Your task to perform on an android device: Search for flights from Helsinki to Seoul Image 0: 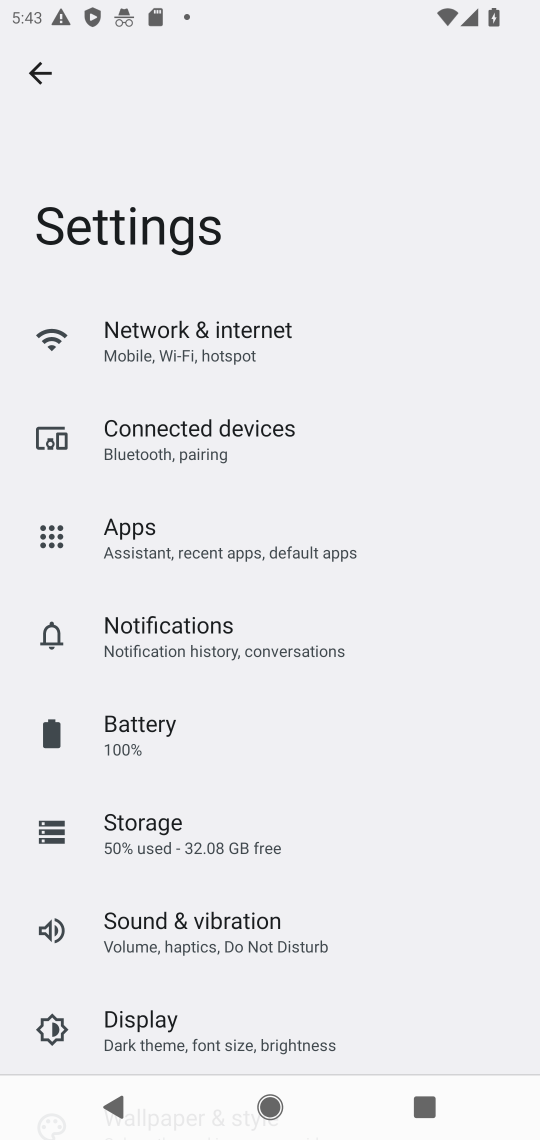
Step 0: press home button
Your task to perform on an android device: Search for flights from Helsinki to Seoul Image 1: 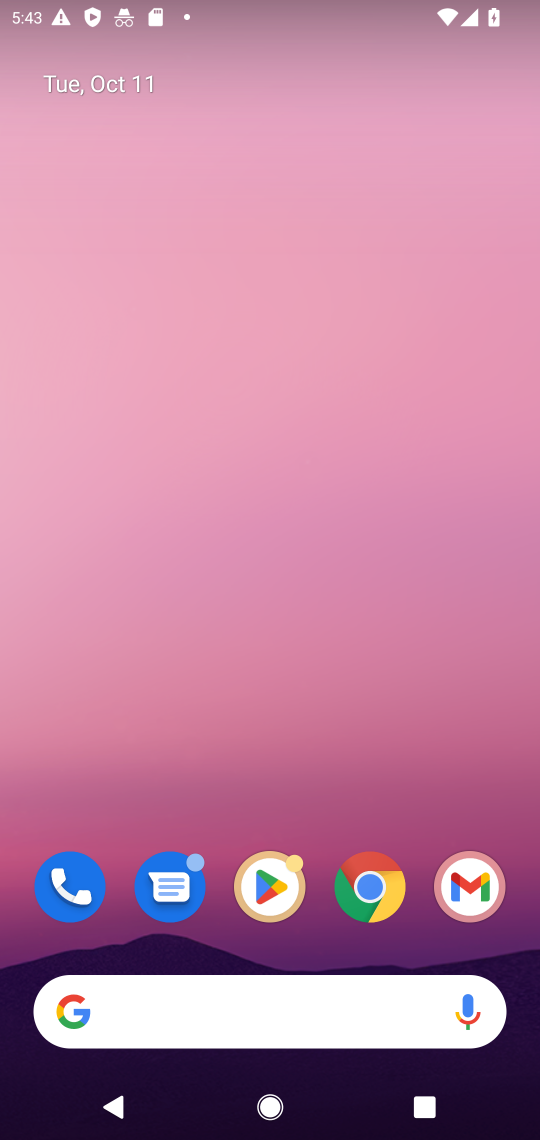
Step 1: drag from (256, 756) to (245, 236)
Your task to perform on an android device: Search for flights from Helsinki to Seoul Image 2: 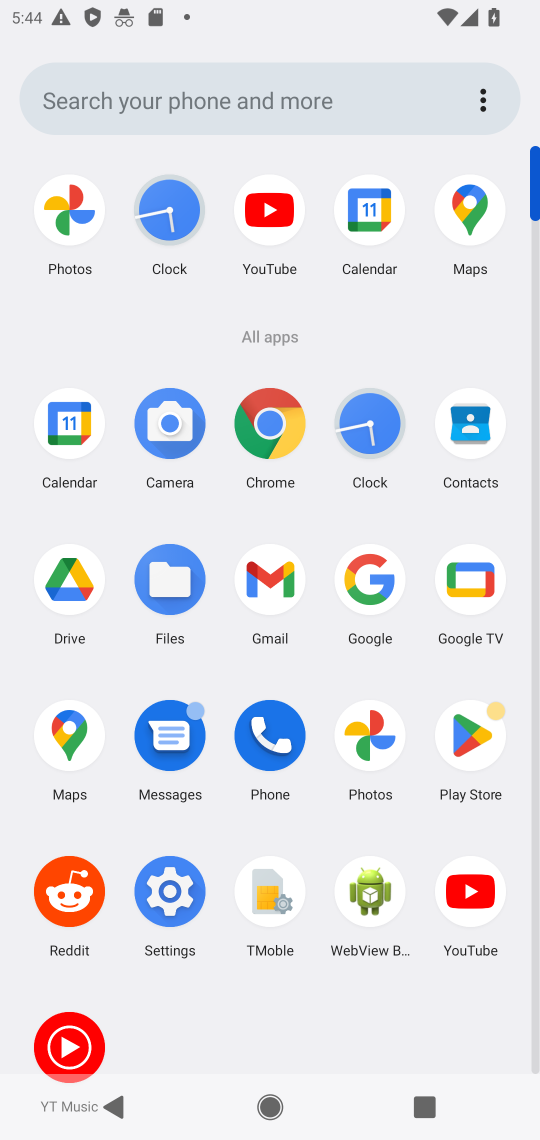
Step 2: click (367, 572)
Your task to perform on an android device: Search for flights from Helsinki to Seoul Image 3: 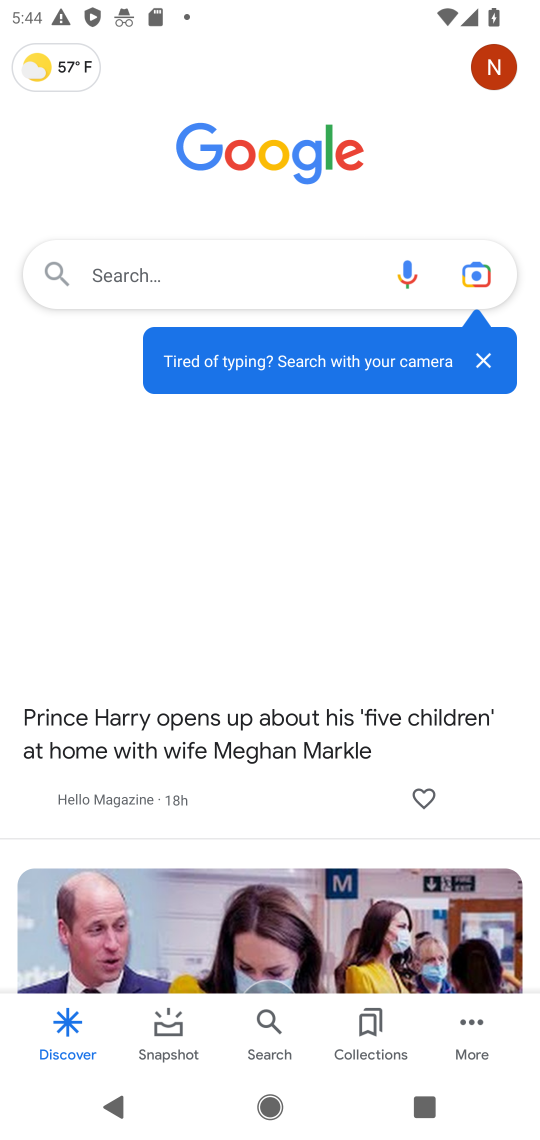
Step 3: click (240, 265)
Your task to perform on an android device: Search for flights from Helsinki to Seoul Image 4: 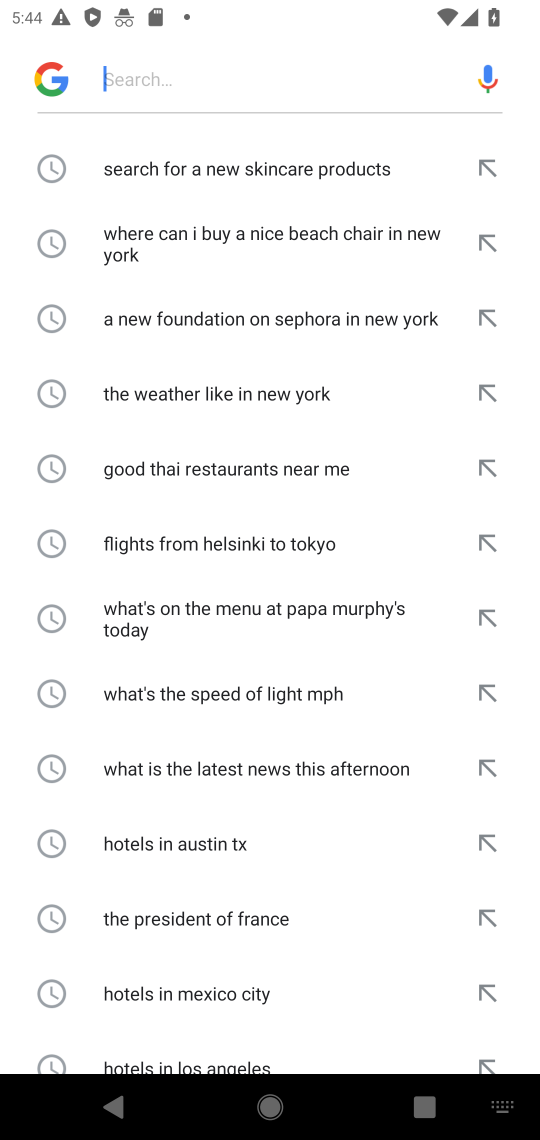
Step 4: type " flights from Helsinki to Seoul"
Your task to perform on an android device: Search for flights from Helsinki to Seoul Image 5: 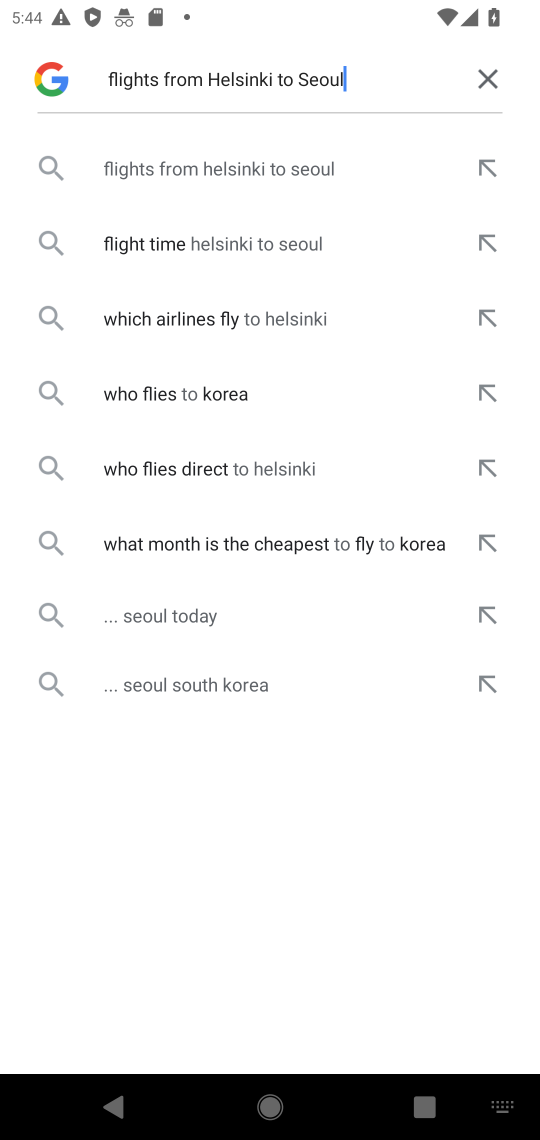
Step 5: click (271, 172)
Your task to perform on an android device: Search for flights from Helsinki to Seoul Image 6: 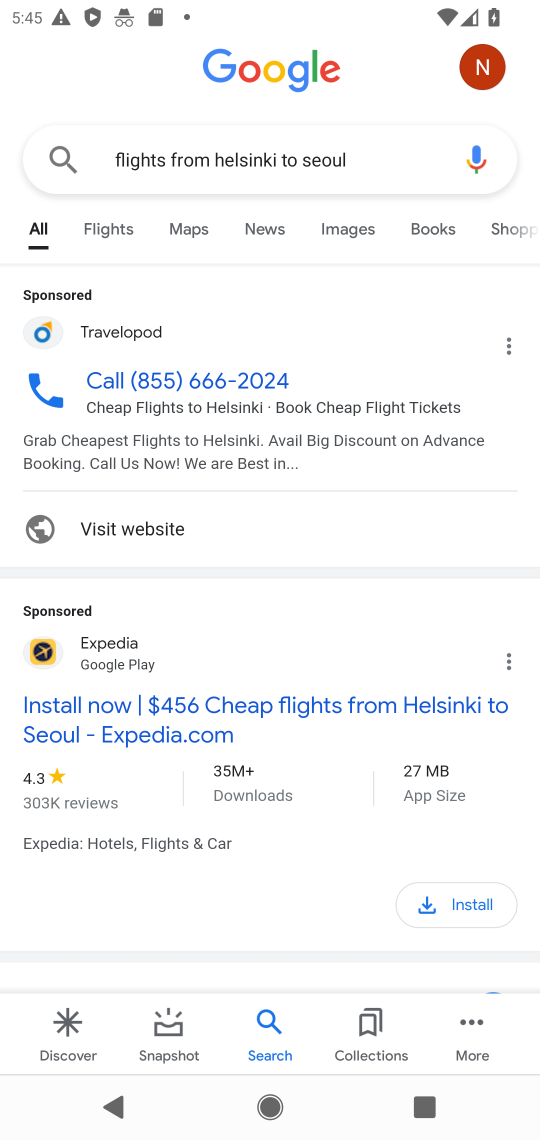
Step 6: drag from (303, 674) to (280, 386)
Your task to perform on an android device: Search for flights from Helsinki to Seoul Image 7: 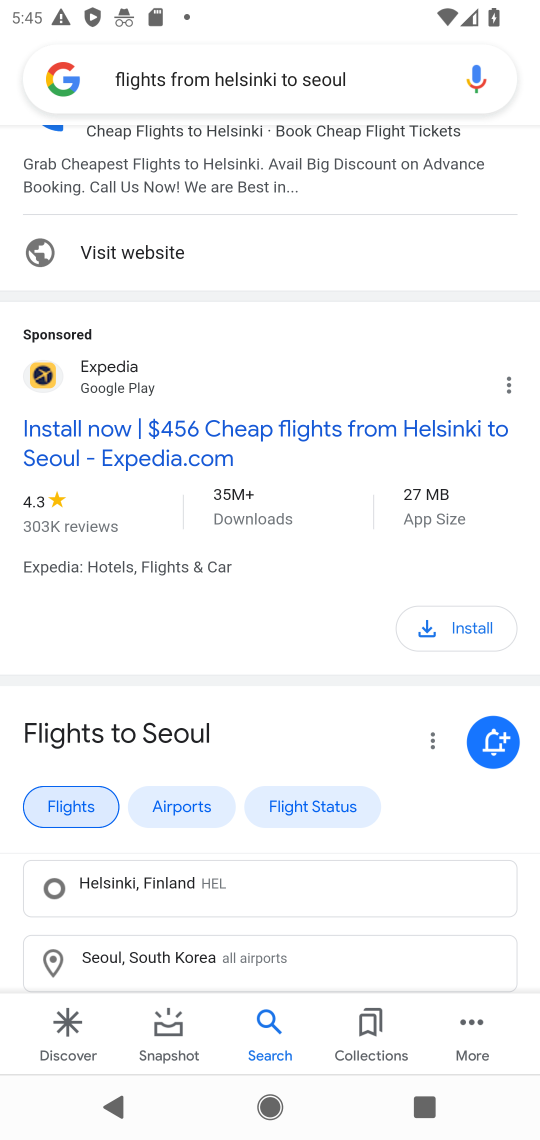
Step 7: drag from (360, 832) to (306, 302)
Your task to perform on an android device: Search for flights from Helsinki to Seoul Image 8: 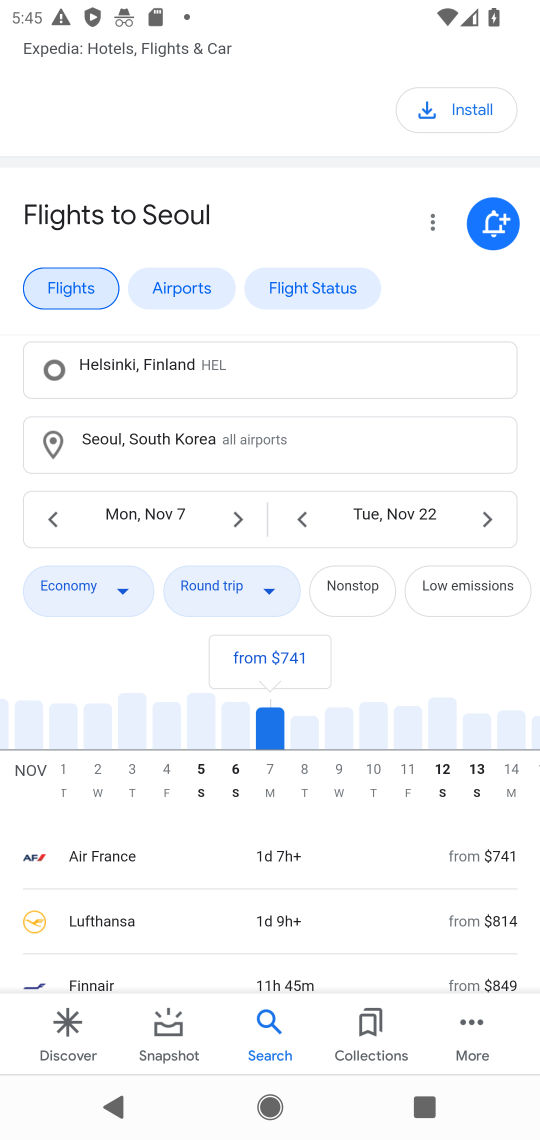
Step 8: drag from (306, 706) to (306, 331)
Your task to perform on an android device: Search for flights from Helsinki to Seoul Image 9: 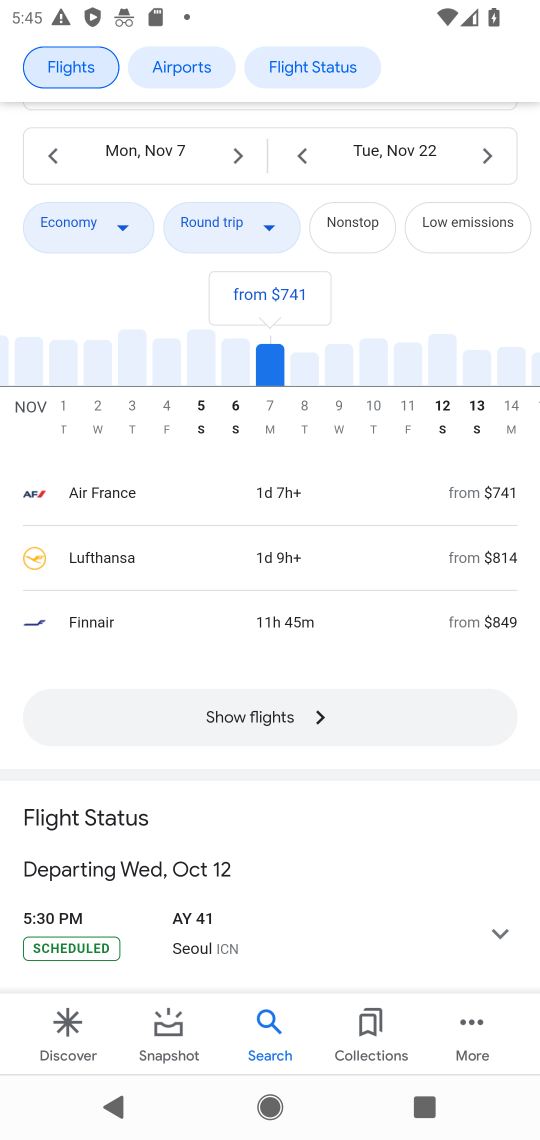
Step 9: click (271, 713)
Your task to perform on an android device: Search for flights from Helsinki to Seoul Image 10: 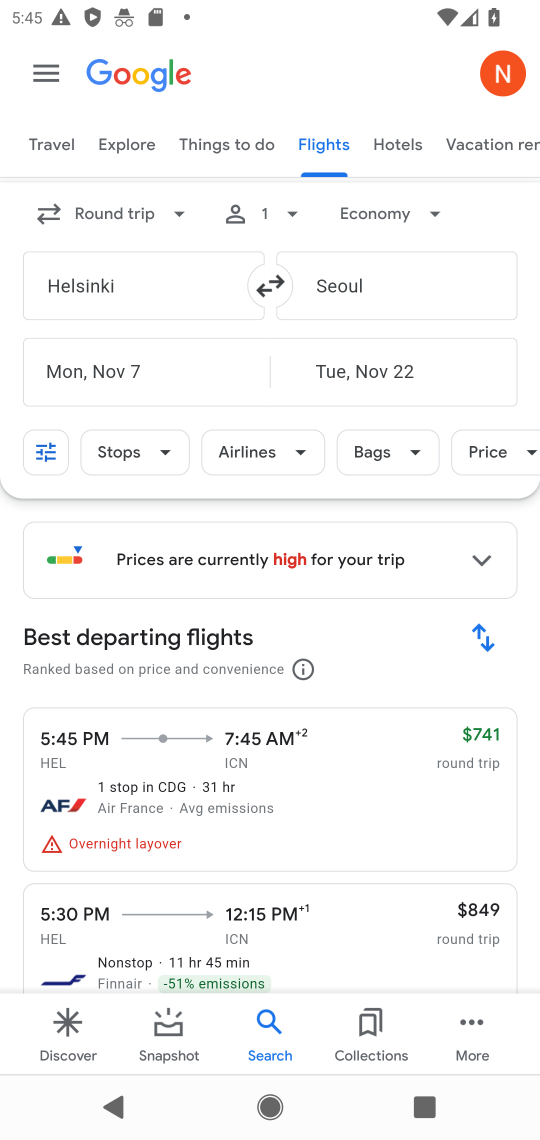
Step 10: task complete